Your task to perform on an android device: Add "energizer triple a" to the cart on ebay Image 0: 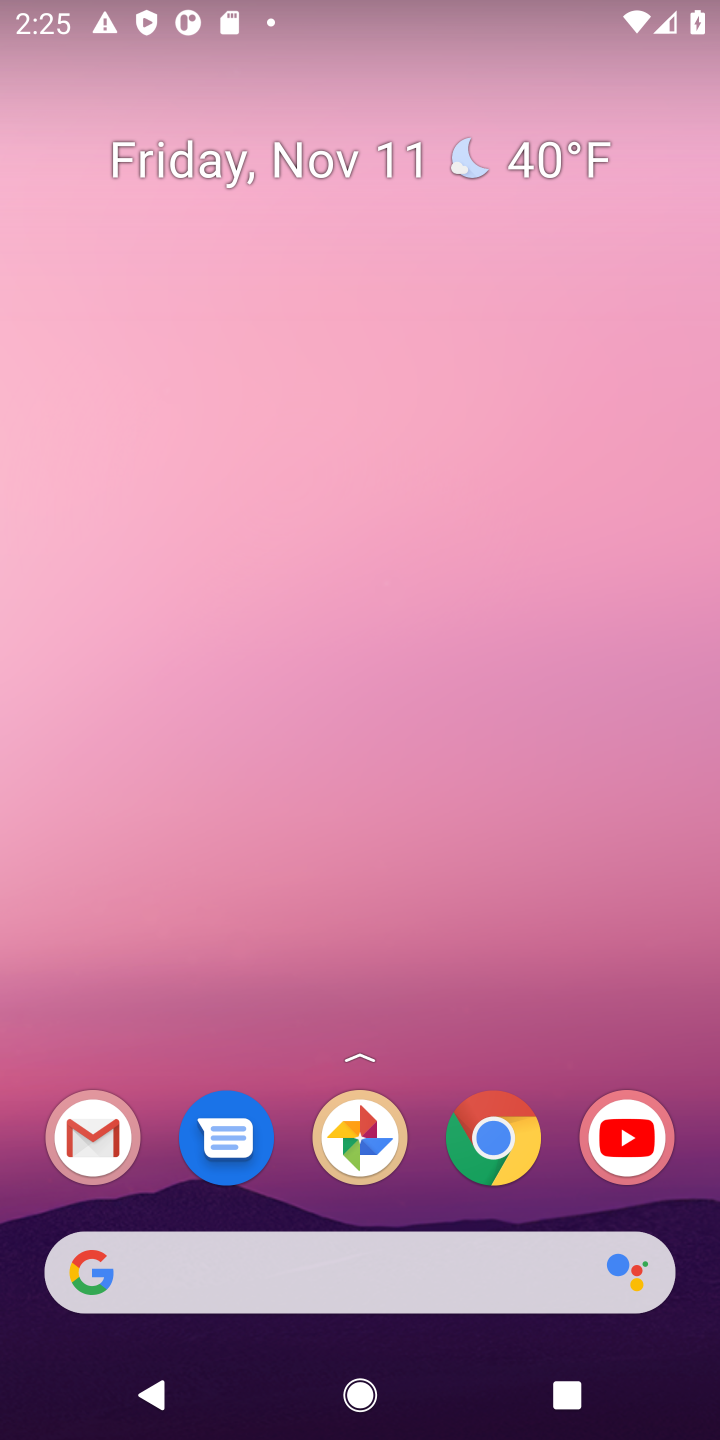
Step 0: click (510, 1143)
Your task to perform on an android device: Add "energizer triple a" to the cart on ebay Image 1: 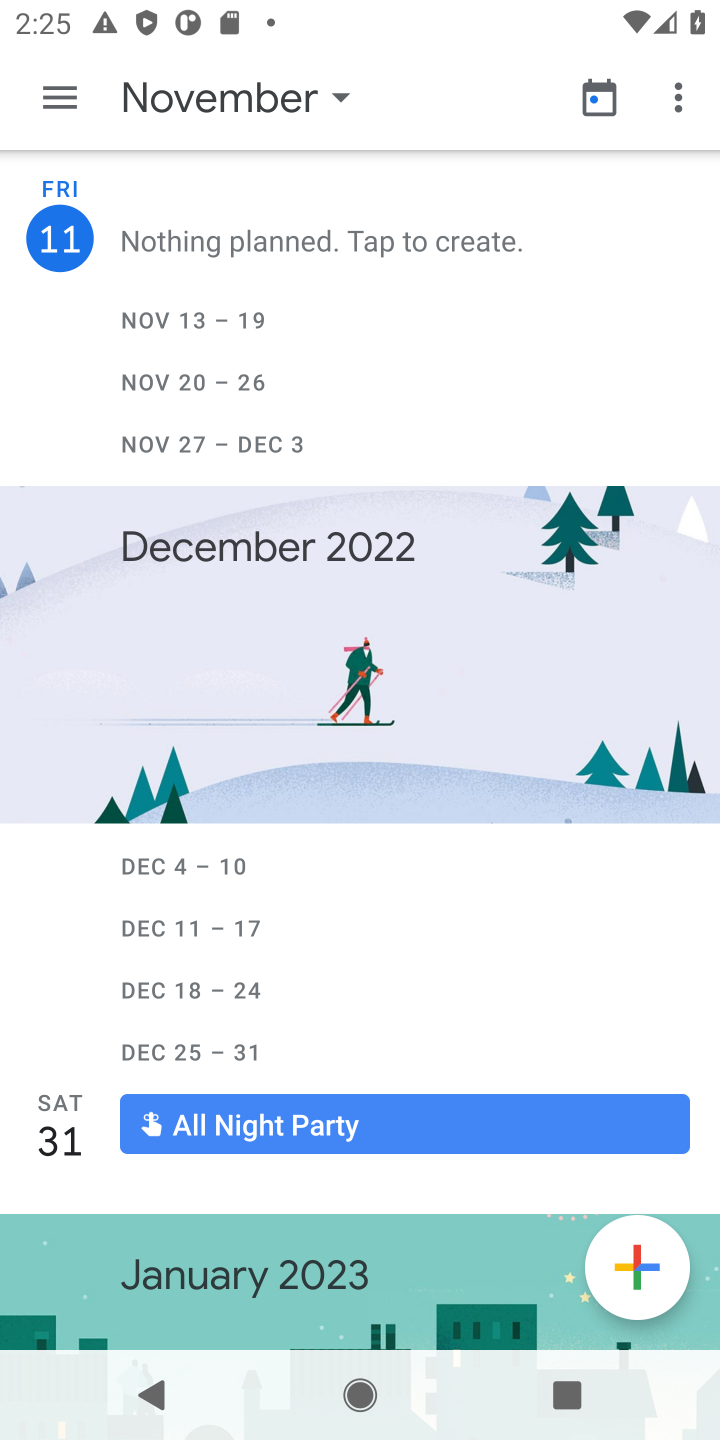
Step 1: press home button
Your task to perform on an android device: Add "energizer triple a" to the cart on ebay Image 2: 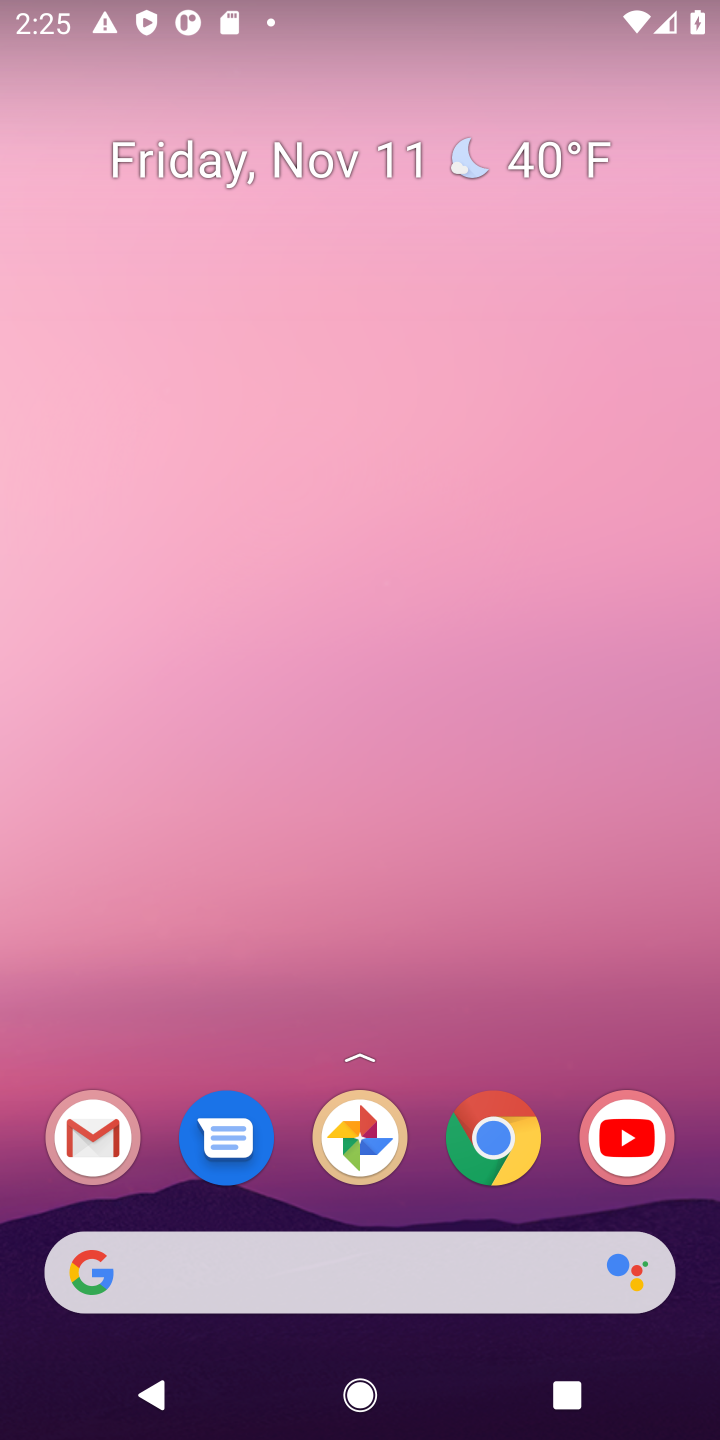
Step 2: click (507, 1127)
Your task to perform on an android device: Add "energizer triple a" to the cart on ebay Image 3: 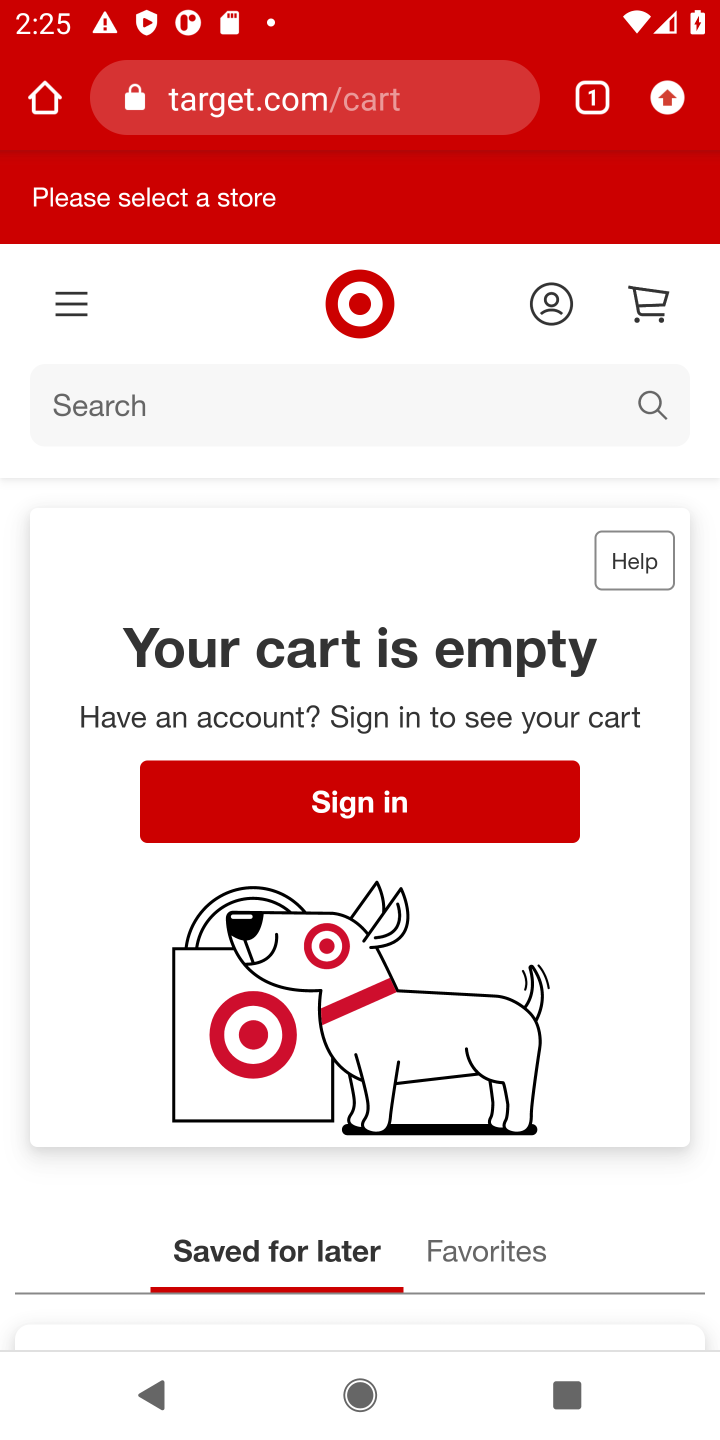
Step 3: click (371, 101)
Your task to perform on an android device: Add "energizer triple a" to the cart on ebay Image 4: 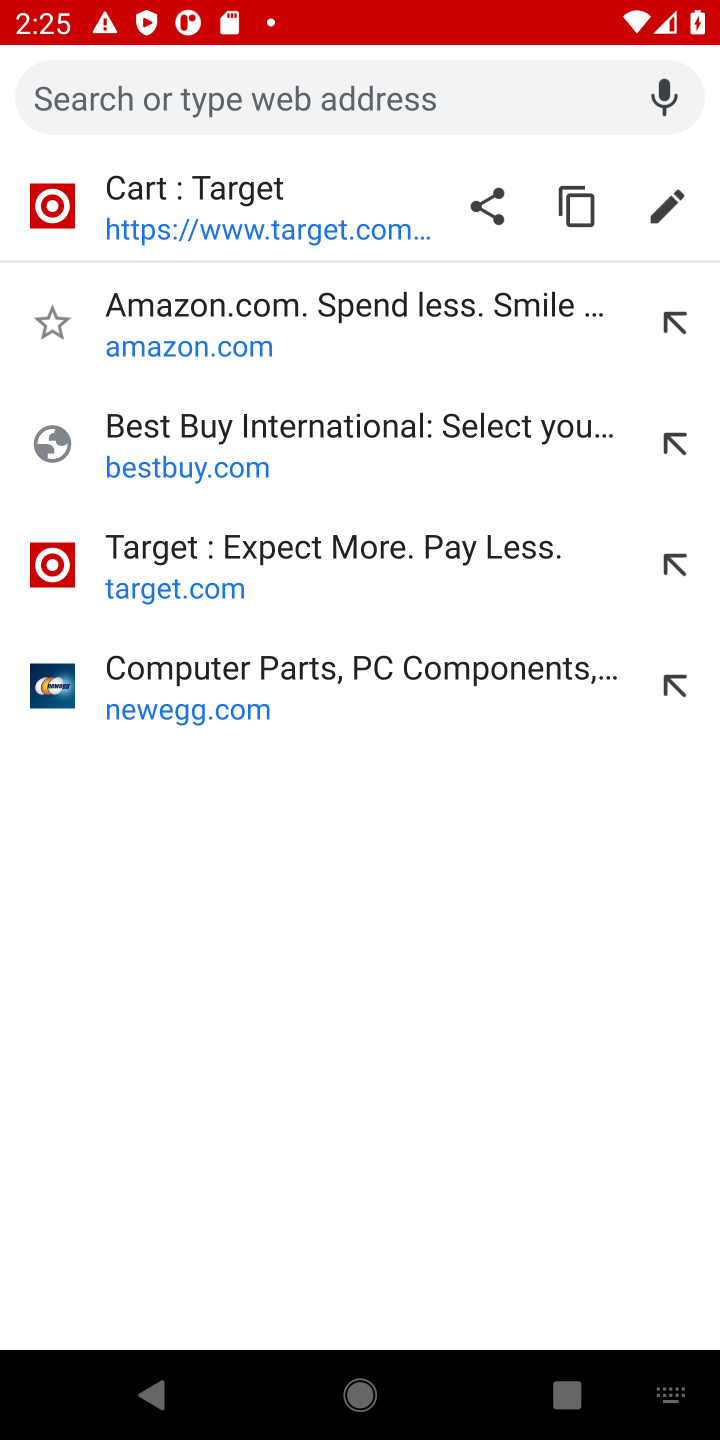
Step 4: type "ebay"
Your task to perform on an android device: Add "energizer triple a" to the cart on ebay Image 5: 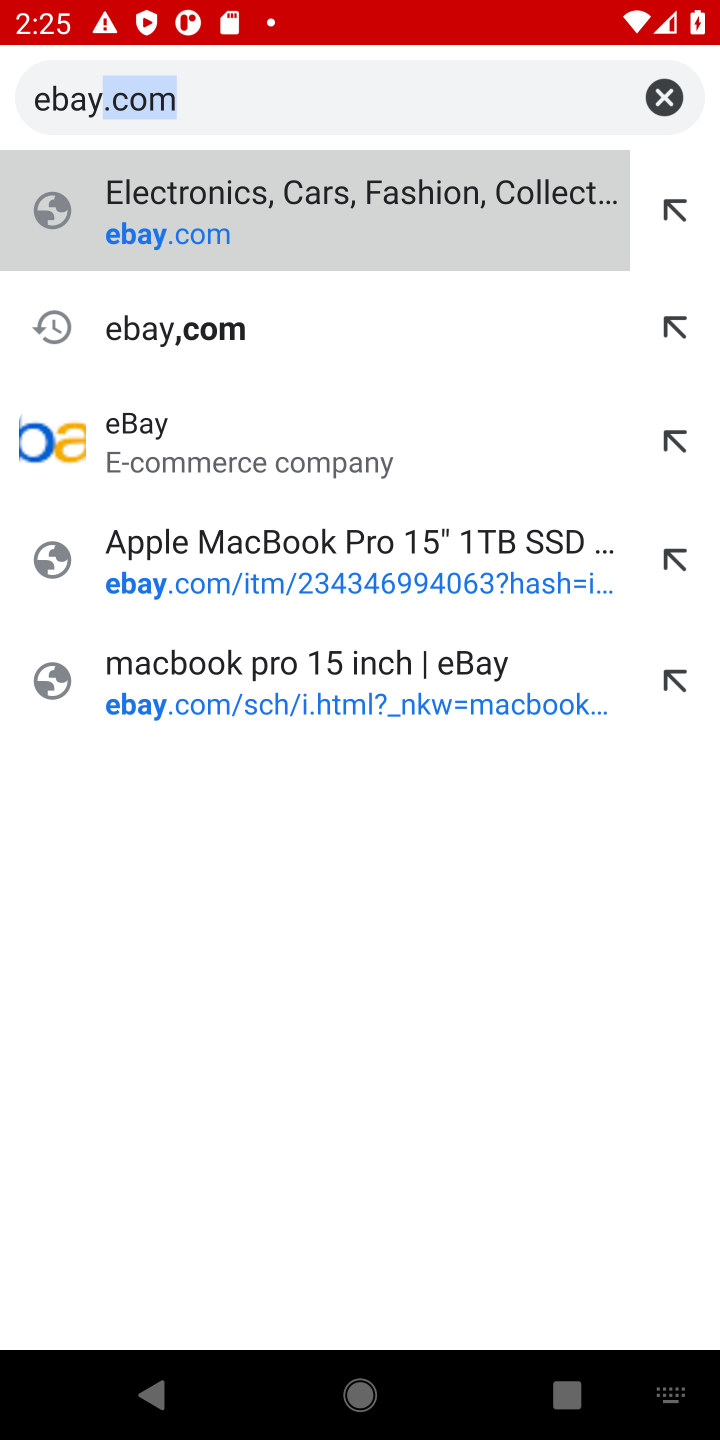
Step 5: click (152, 320)
Your task to perform on an android device: Add "energizer triple a" to the cart on ebay Image 6: 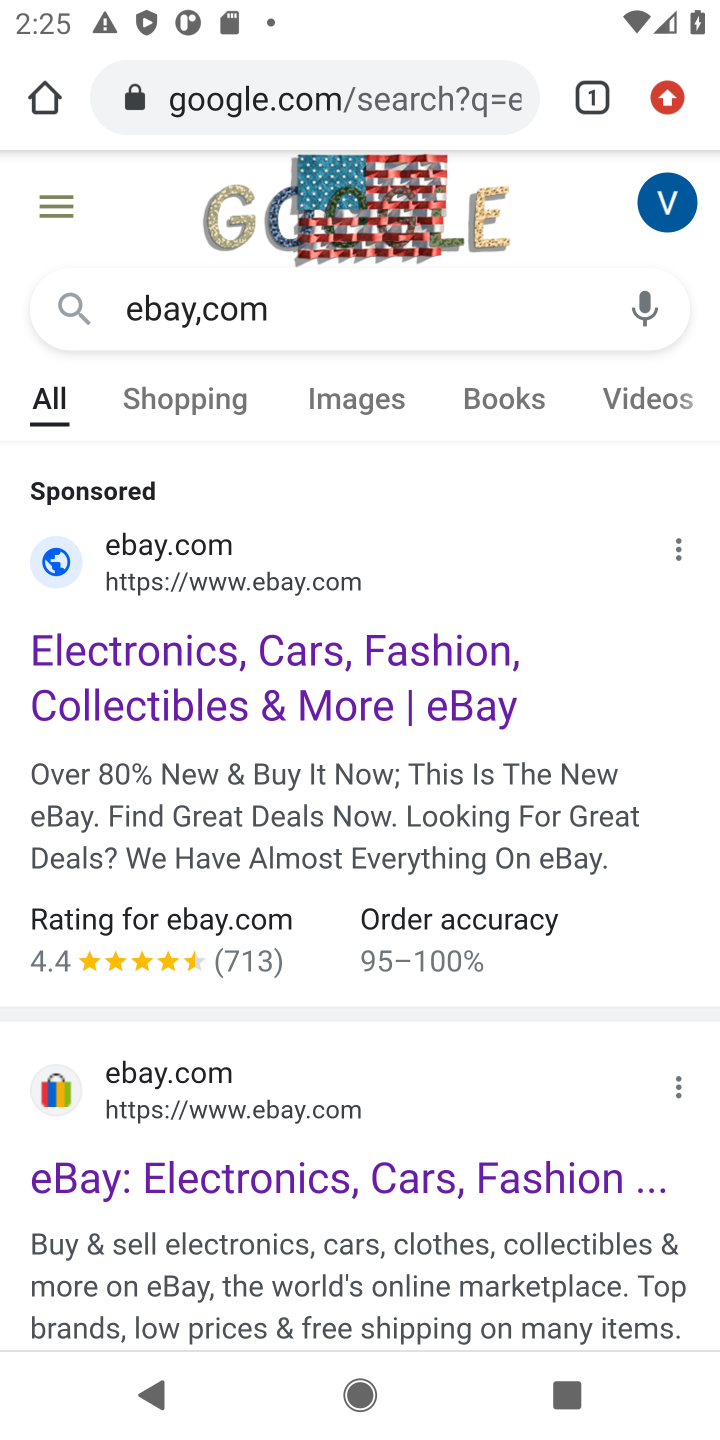
Step 6: click (249, 577)
Your task to perform on an android device: Add "energizer triple a" to the cart on ebay Image 7: 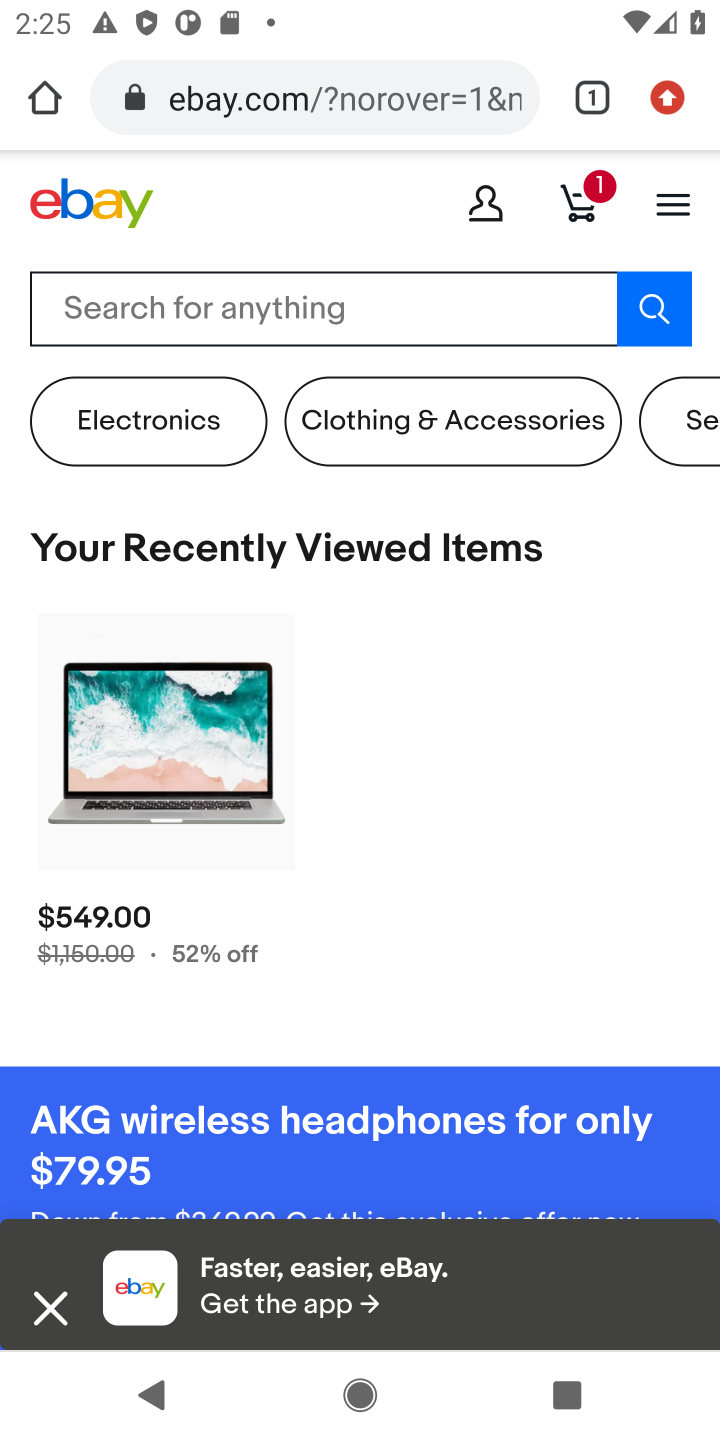
Step 7: click (183, 312)
Your task to perform on an android device: Add "energizer triple a" to the cart on ebay Image 8: 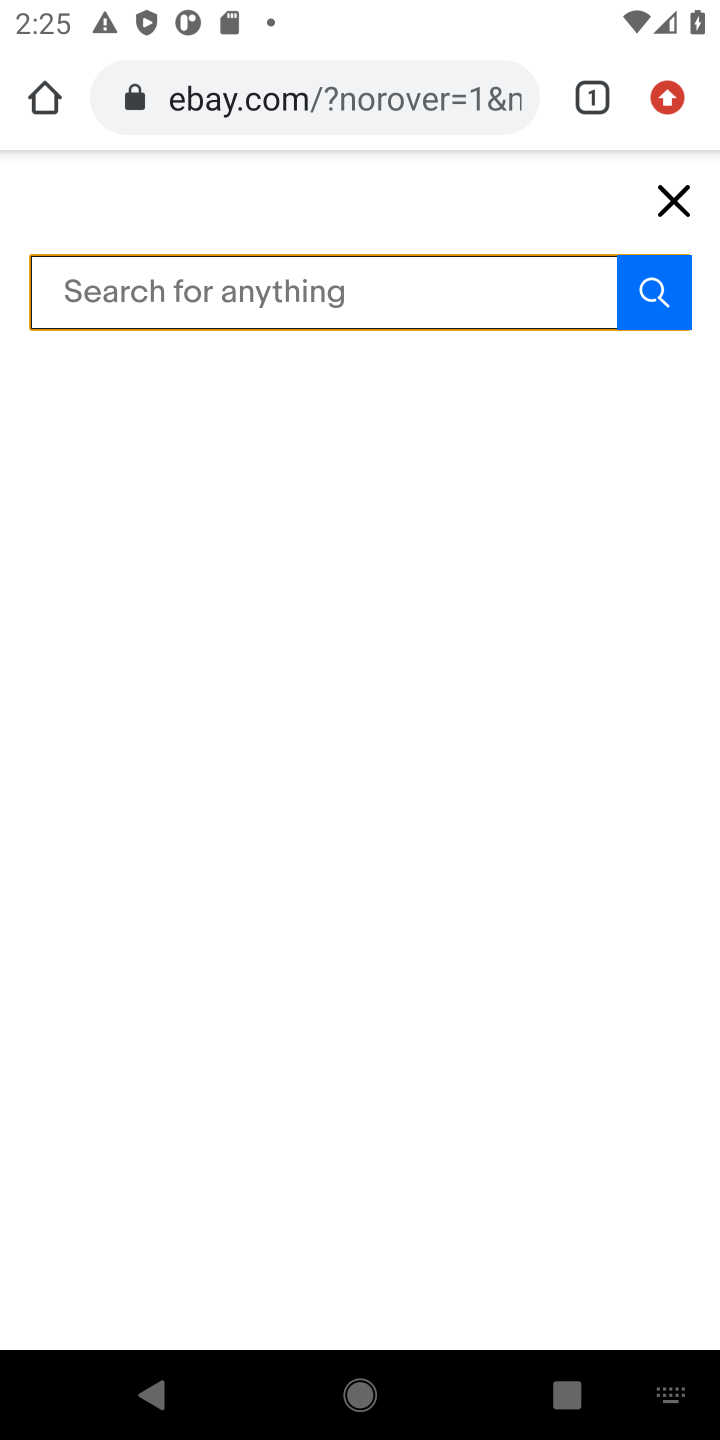
Step 8: type "energizer triple a"
Your task to perform on an android device: Add "energizer triple a" to the cart on ebay Image 9: 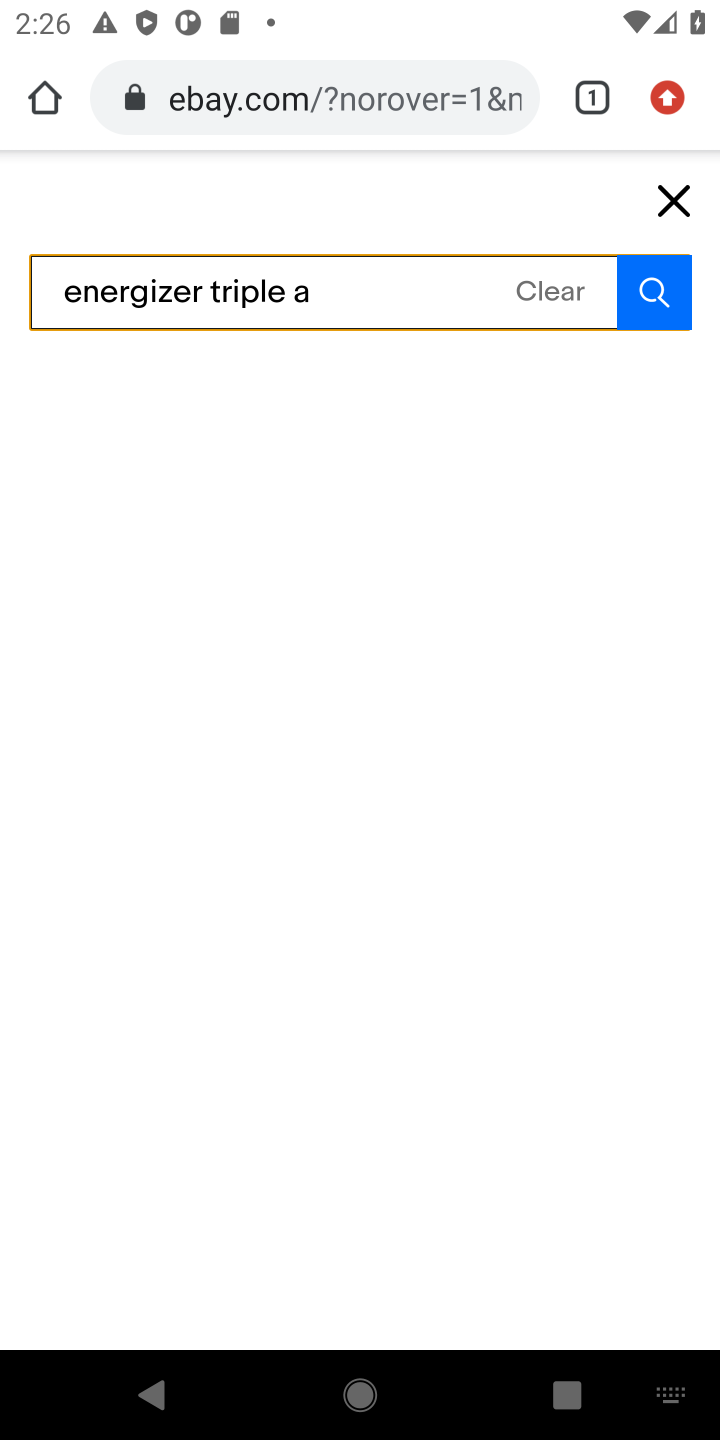
Step 9: click (479, 297)
Your task to perform on an android device: Add "energizer triple a" to the cart on ebay Image 10: 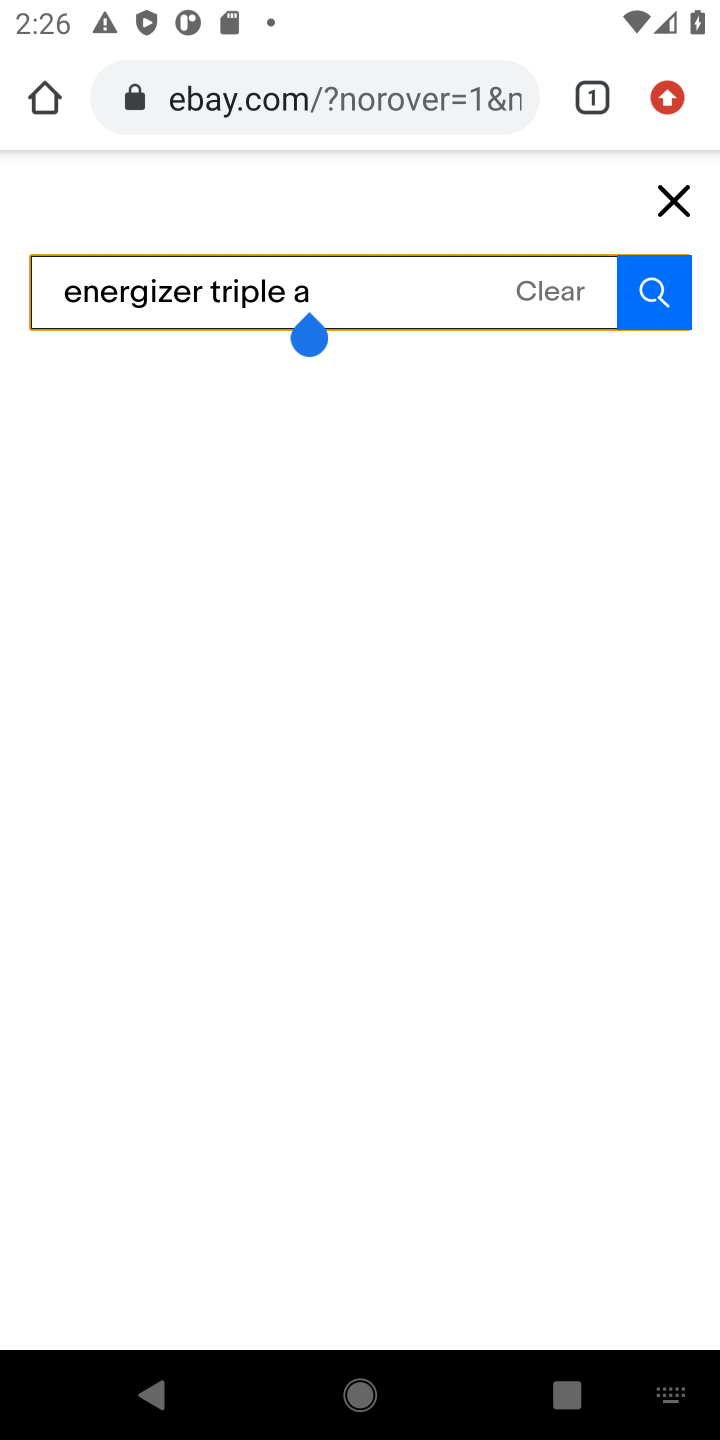
Step 10: click (639, 314)
Your task to perform on an android device: Add "energizer triple a" to the cart on ebay Image 11: 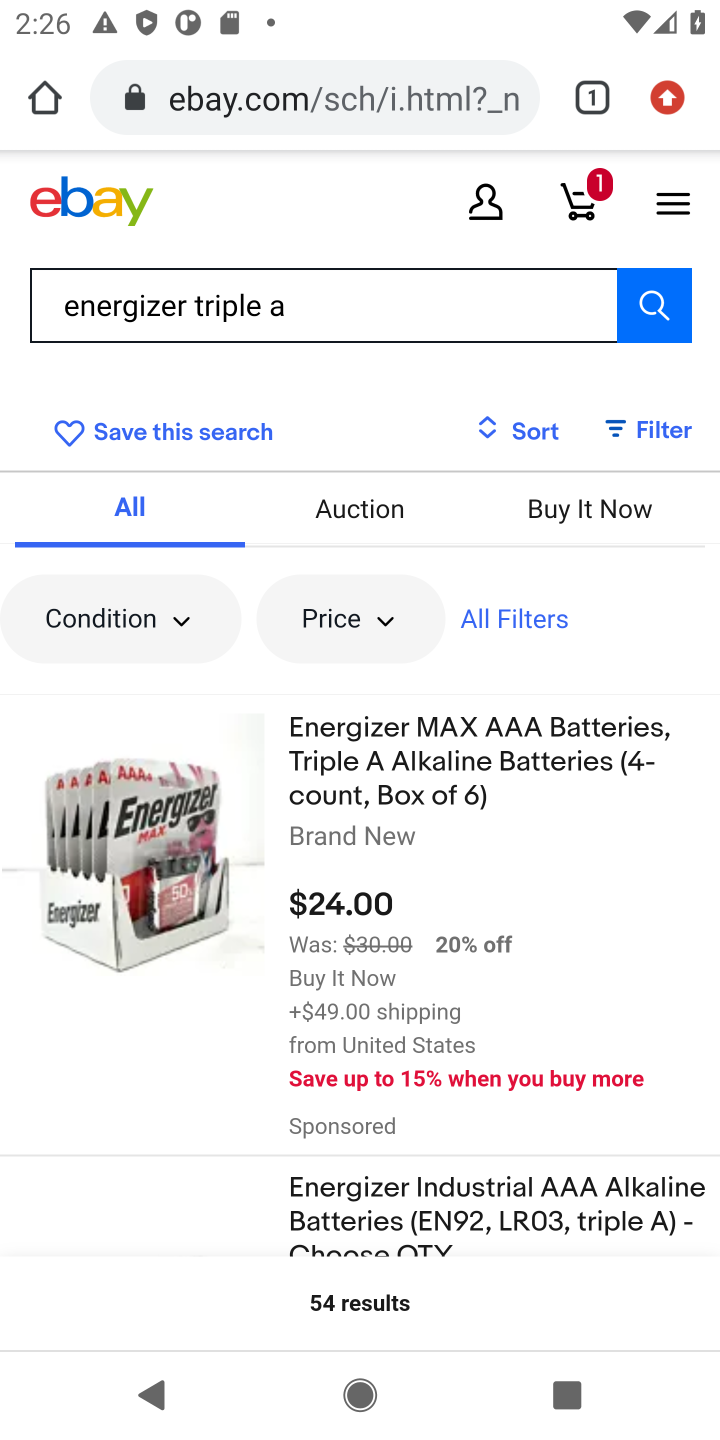
Step 11: click (162, 875)
Your task to perform on an android device: Add "energizer triple a" to the cart on ebay Image 12: 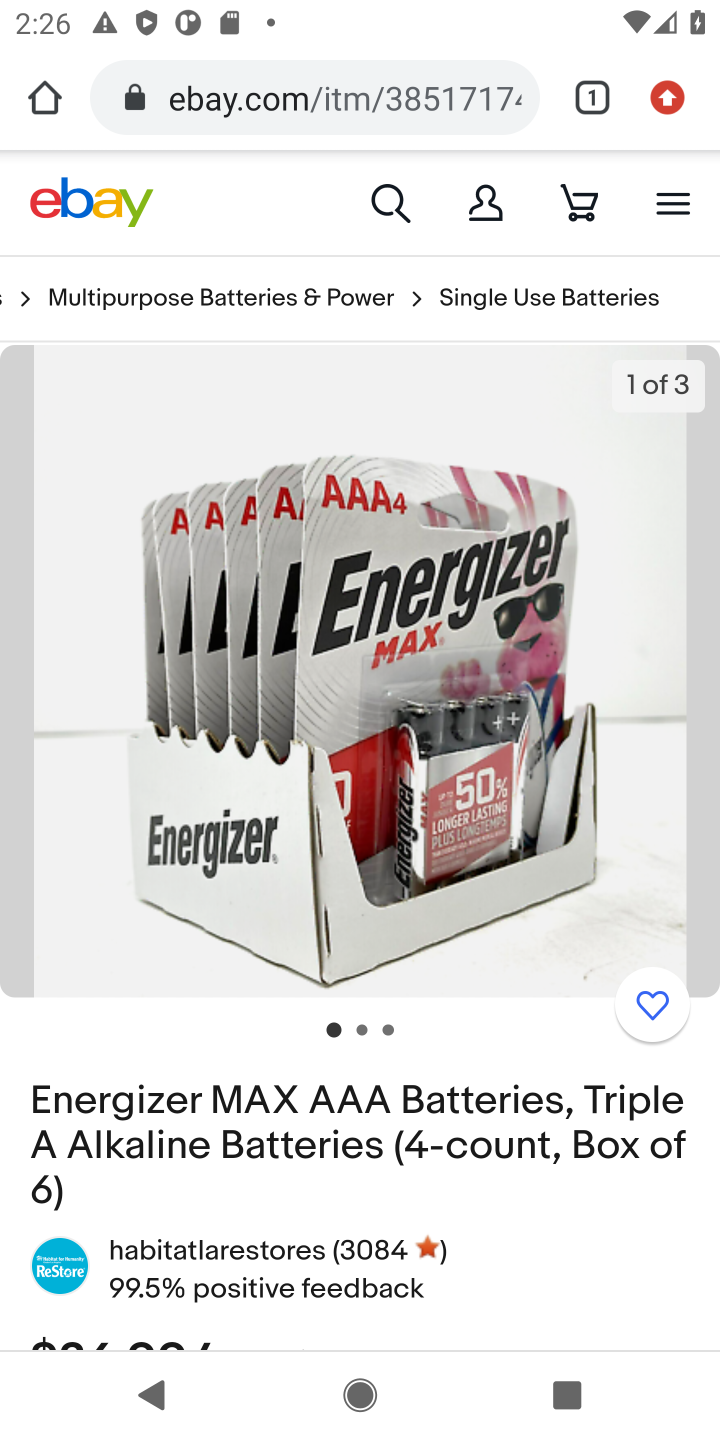
Step 12: drag from (420, 1134) to (498, 535)
Your task to perform on an android device: Add "energizer triple a" to the cart on ebay Image 13: 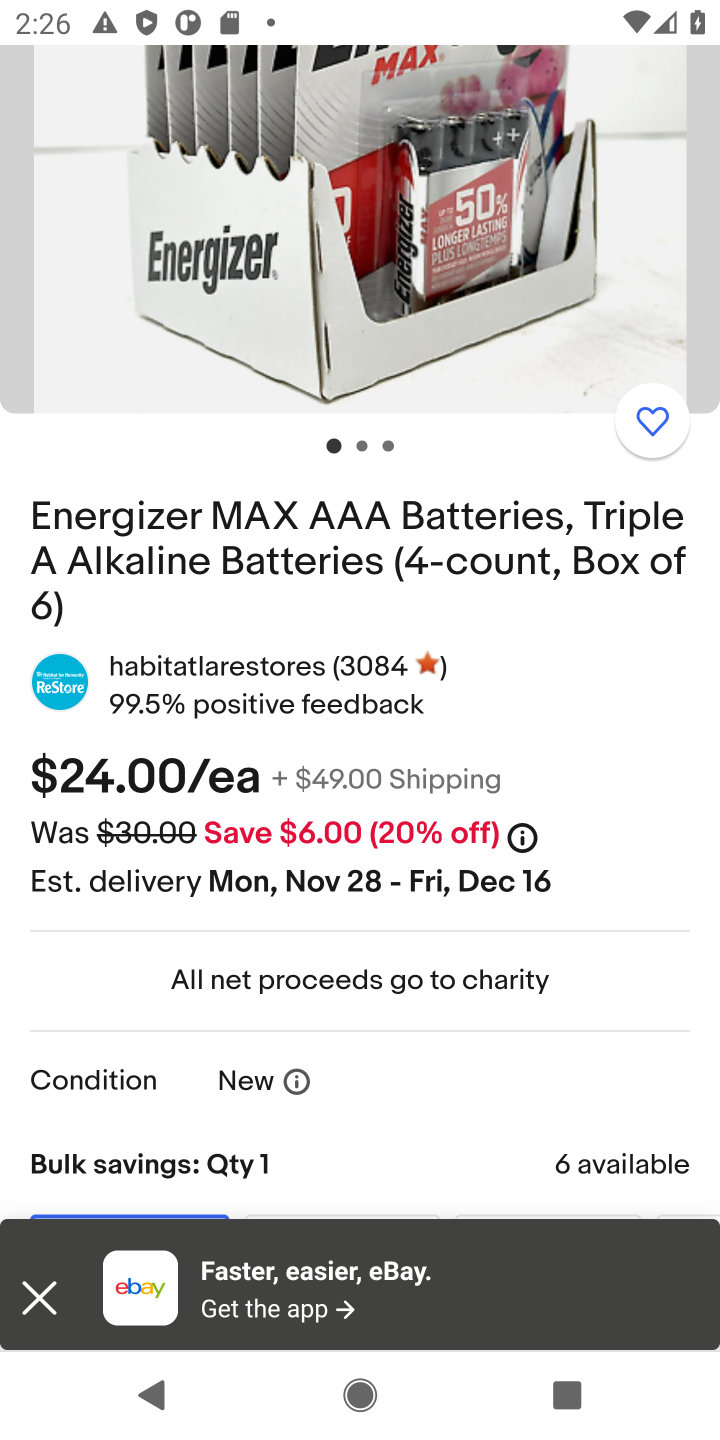
Step 13: drag from (506, 1047) to (477, 458)
Your task to perform on an android device: Add "energizer triple a" to the cart on ebay Image 14: 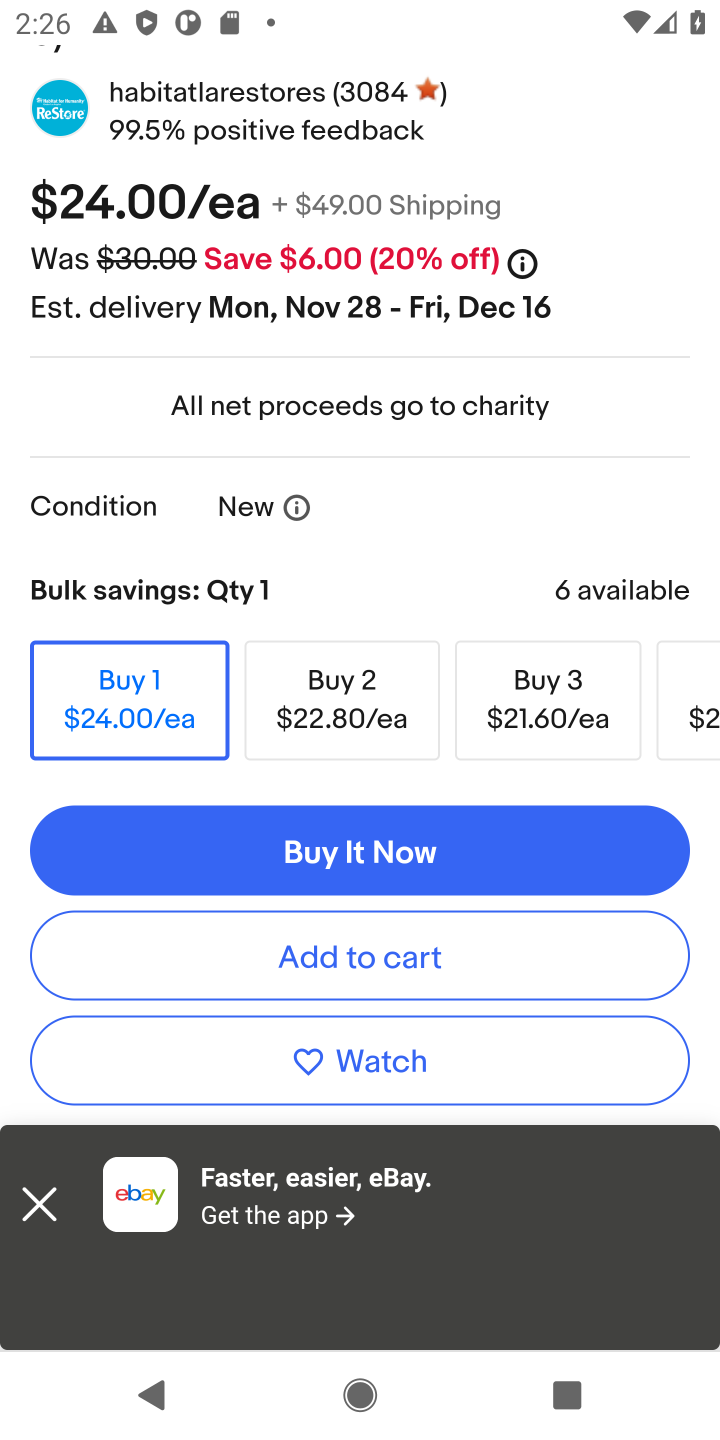
Step 14: click (362, 950)
Your task to perform on an android device: Add "energizer triple a" to the cart on ebay Image 15: 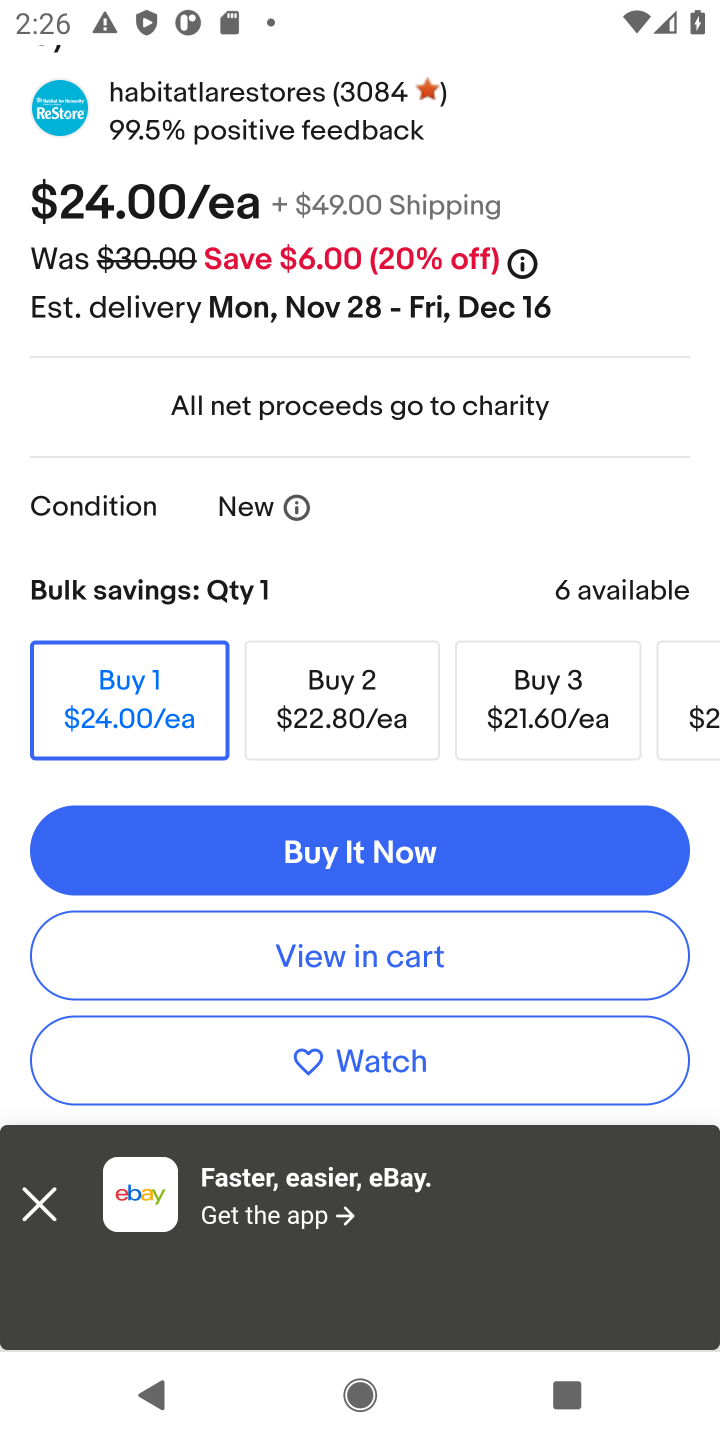
Step 15: click (362, 950)
Your task to perform on an android device: Add "energizer triple a" to the cart on ebay Image 16: 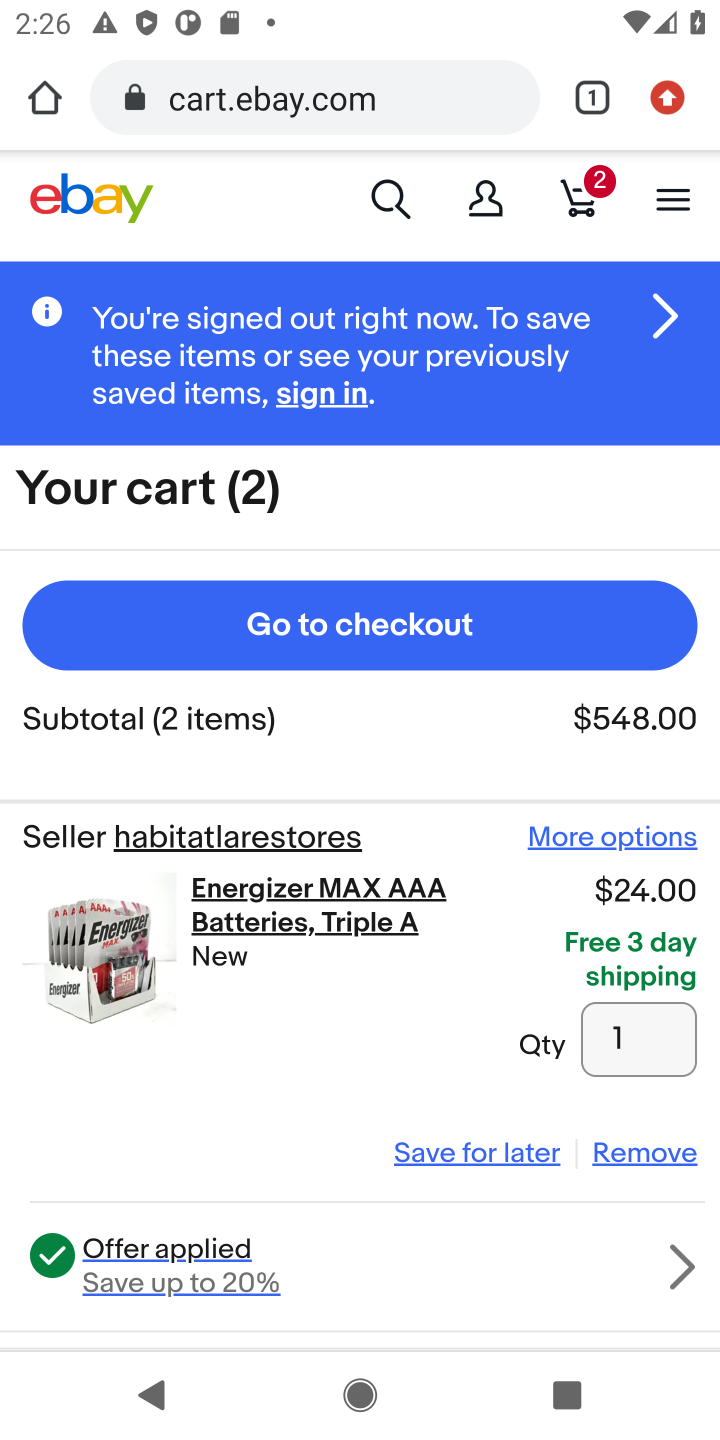
Step 16: task complete